Your task to perform on an android device: turn on bluetooth scan Image 0: 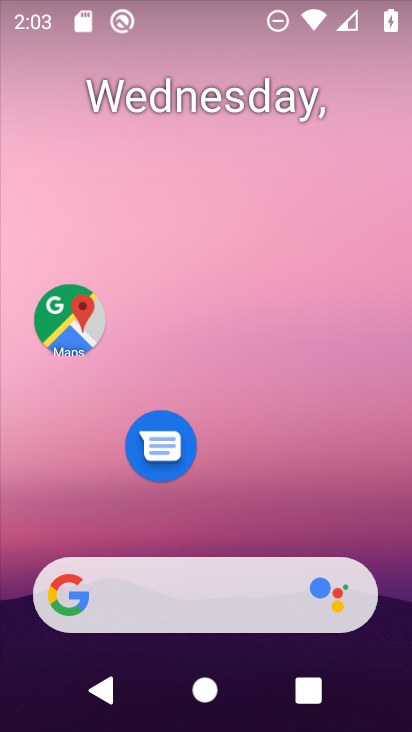
Step 0: drag from (336, 510) to (291, 8)
Your task to perform on an android device: turn on bluetooth scan Image 1: 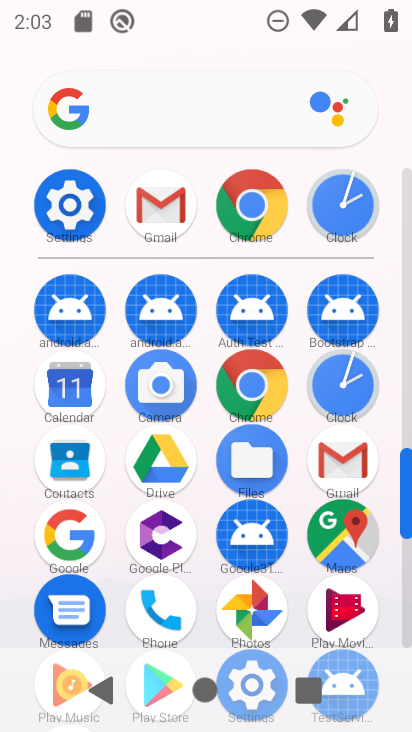
Step 1: click (52, 213)
Your task to perform on an android device: turn on bluetooth scan Image 2: 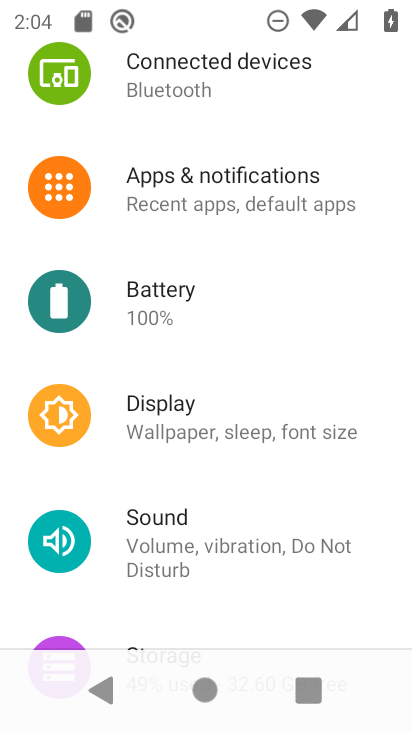
Step 2: drag from (188, 465) to (171, 135)
Your task to perform on an android device: turn on bluetooth scan Image 3: 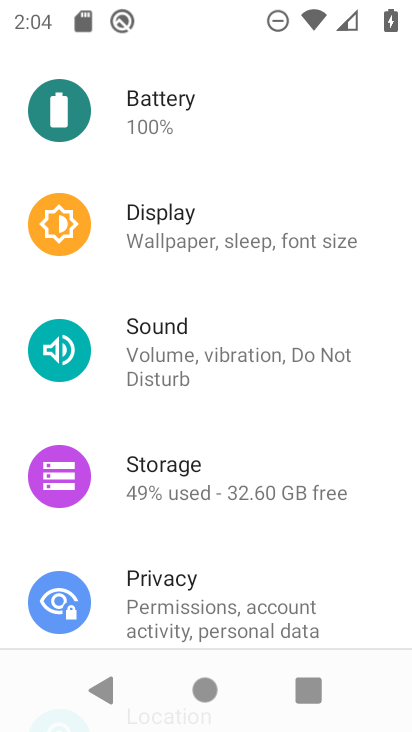
Step 3: drag from (192, 557) to (169, 185)
Your task to perform on an android device: turn on bluetooth scan Image 4: 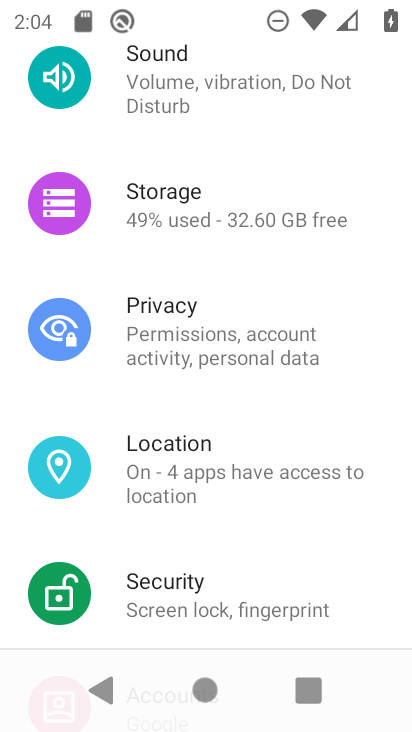
Step 4: click (168, 459)
Your task to perform on an android device: turn on bluetooth scan Image 5: 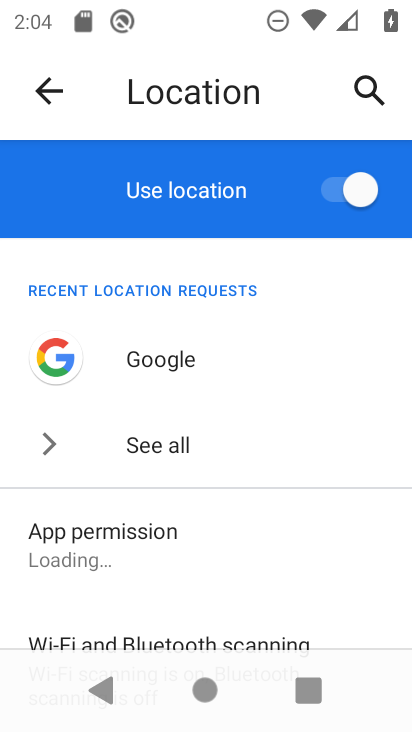
Step 5: drag from (219, 573) to (226, 216)
Your task to perform on an android device: turn on bluetooth scan Image 6: 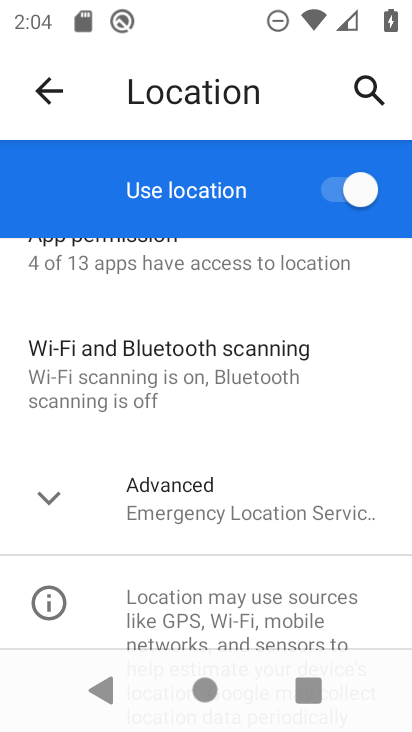
Step 6: drag from (177, 490) to (105, 243)
Your task to perform on an android device: turn on bluetooth scan Image 7: 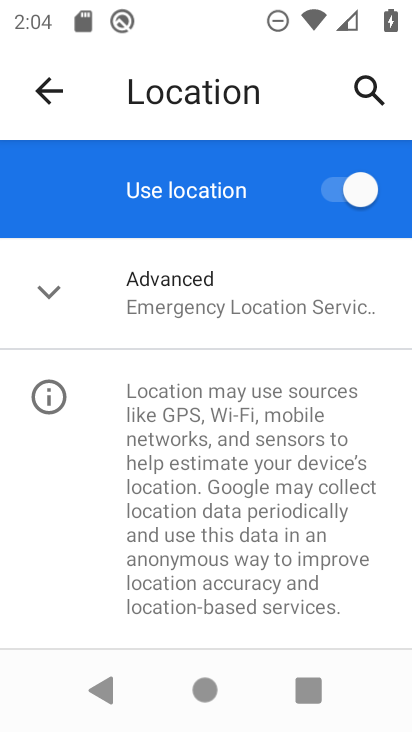
Step 7: click (90, 269)
Your task to perform on an android device: turn on bluetooth scan Image 8: 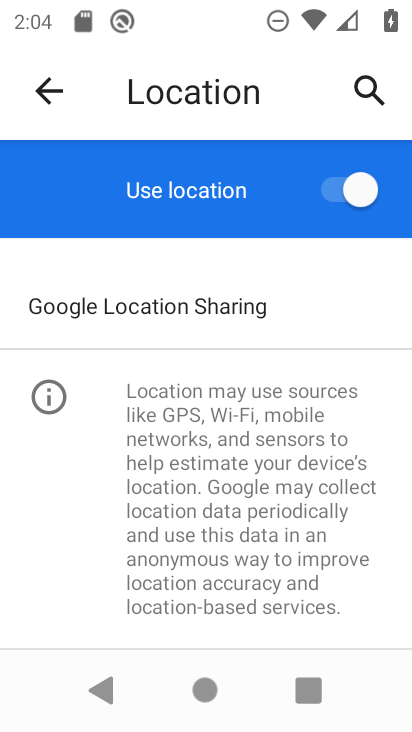
Step 8: drag from (95, 444) to (95, 68)
Your task to perform on an android device: turn on bluetooth scan Image 9: 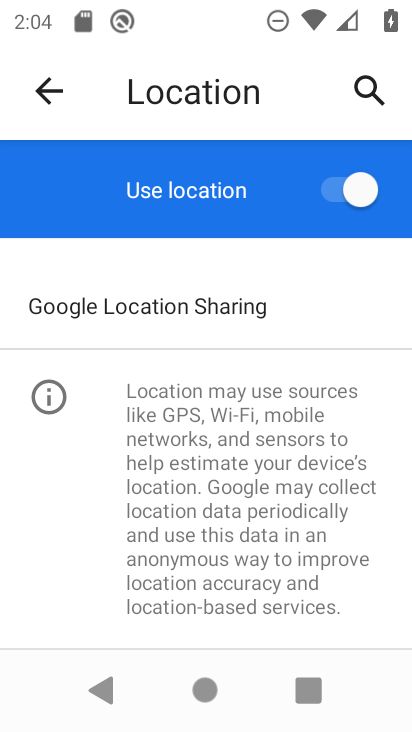
Step 9: drag from (68, 475) to (68, 261)
Your task to perform on an android device: turn on bluetooth scan Image 10: 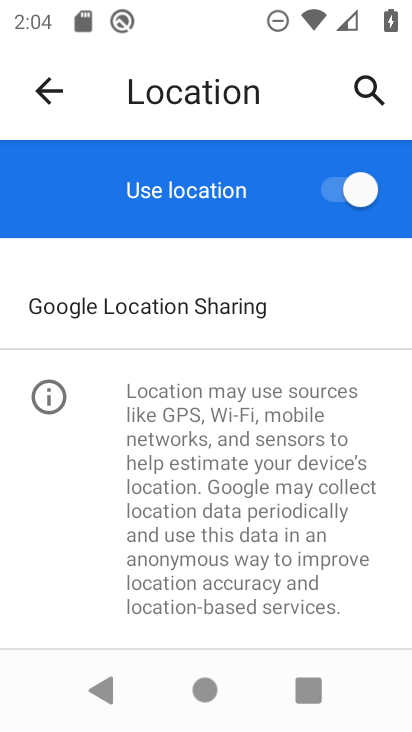
Step 10: click (38, 104)
Your task to perform on an android device: turn on bluetooth scan Image 11: 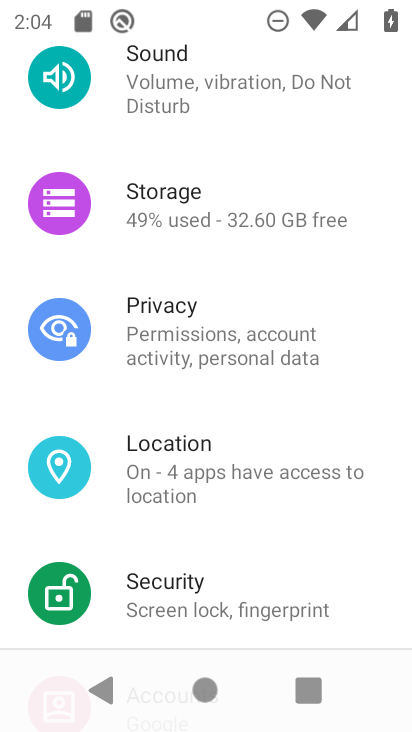
Step 11: click (154, 490)
Your task to perform on an android device: turn on bluetooth scan Image 12: 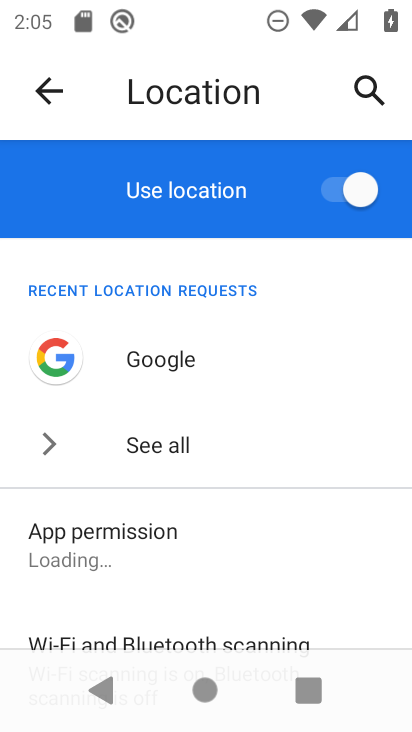
Step 12: click (128, 614)
Your task to perform on an android device: turn on bluetooth scan Image 13: 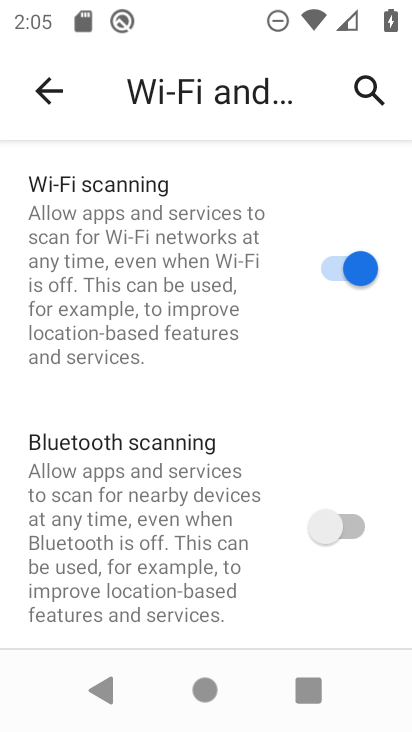
Step 13: click (298, 540)
Your task to perform on an android device: turn on bluetooth scan Image 14: 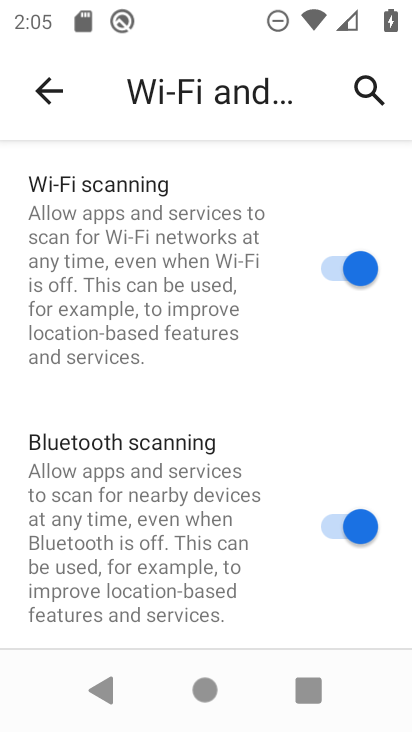
Step 14: task complete